Your task to perform on an android device: Open calendar and show me the first week of next month Image 0: 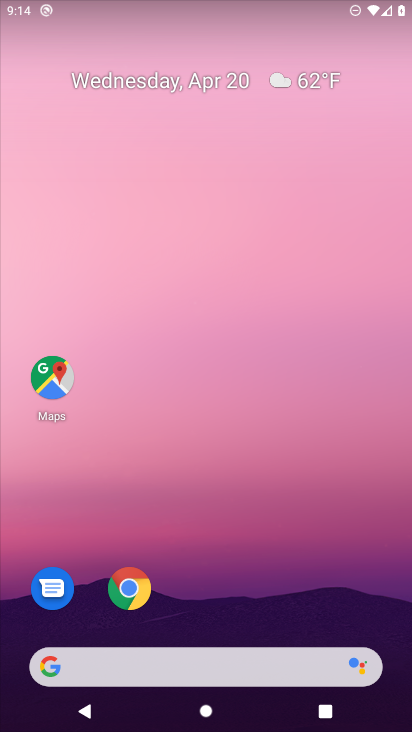
Step 0: drag from (217, 585) to (221, 47)
Your task to perform on an android device: Open calendar and show me the first week of next month Image 1: 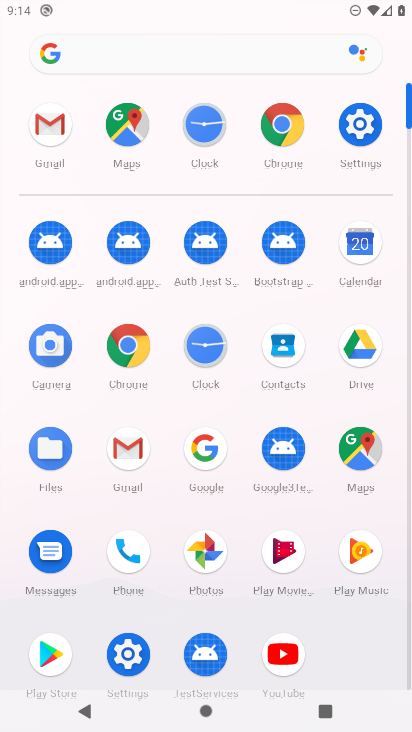
Step 1: click (360, 241)
Your task to perform on an android device: Open calendar and show me the first week of next month Image 2: 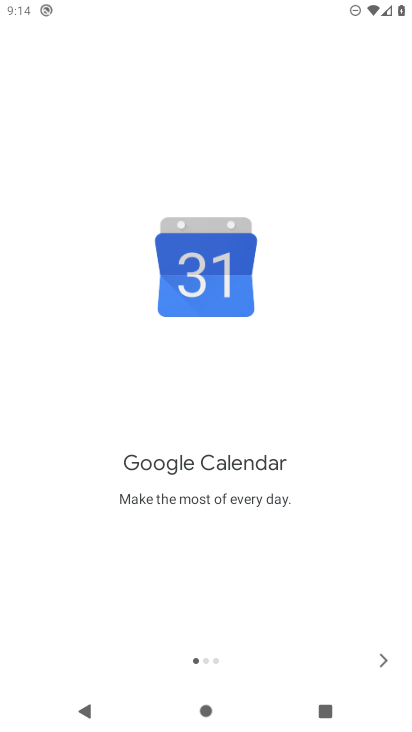
Step 2: click (381, 655)
Your task to perform on an android device: Open calendar and show me the first week of next month Image 3: 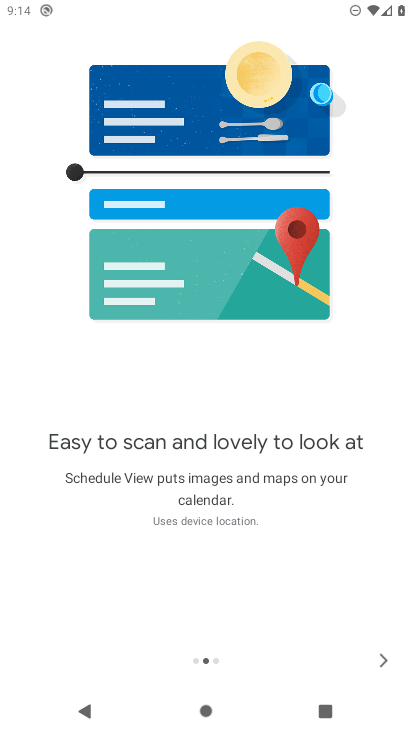
Step 3: click (381, 655)
Your task to perform on an android device: Open calendar and show me the first week of next month Image 4: 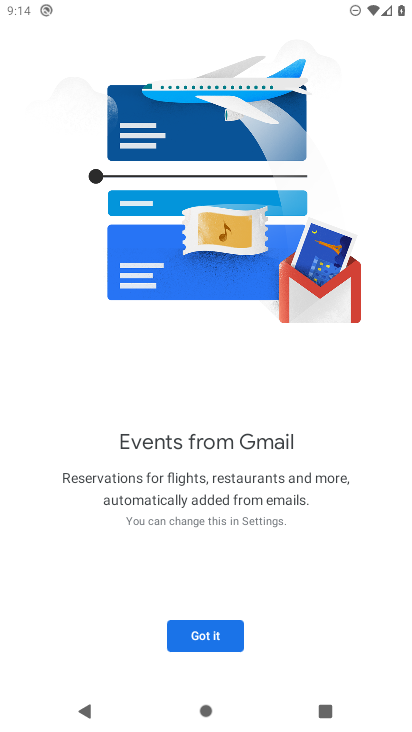
Step 4: click (204, 632)
Your task to perform on an android device: Open calendar and show me the first week of next month Image 5: 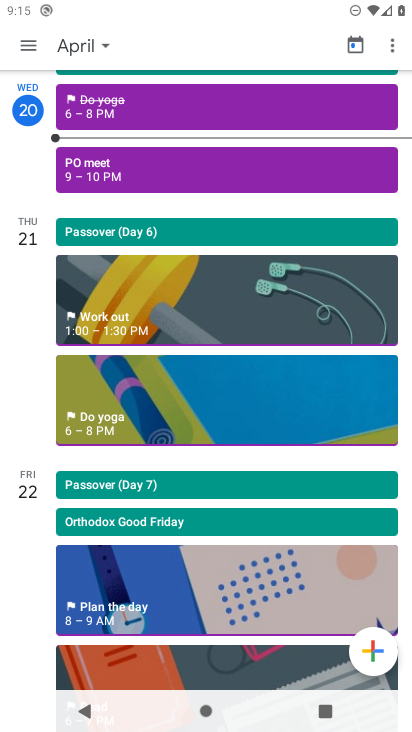
Step 5: drag from (37, 559) to (43, 168)
Your task to perform on an android device: Open calendar and show me the first week of next month Image 6: 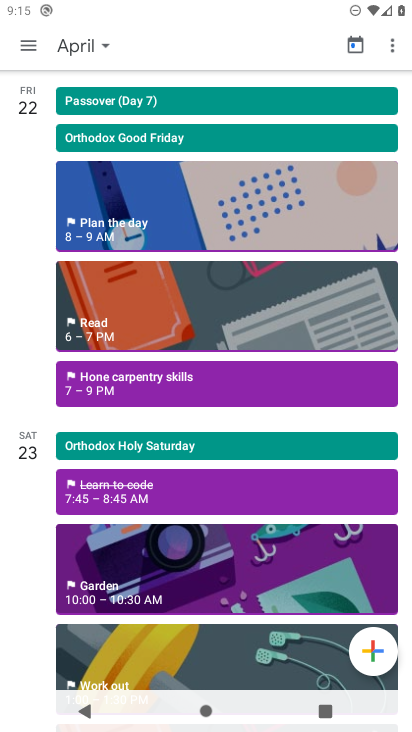
Step 6: drag from (31, 619) to (36, 205)
Your task to perform on an android device: Open calendar and show me the first week of next month Image 7: 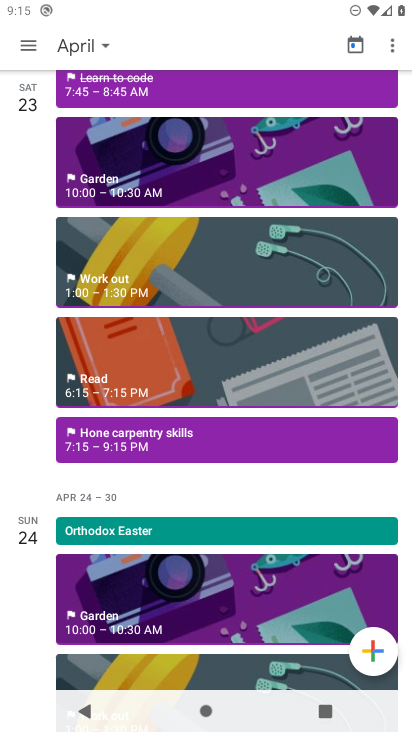
Step 7: drag from (26, 624) to (32, 215)
Your task to perform on an android device: Open calendar and show me the first week of next month Image 8: 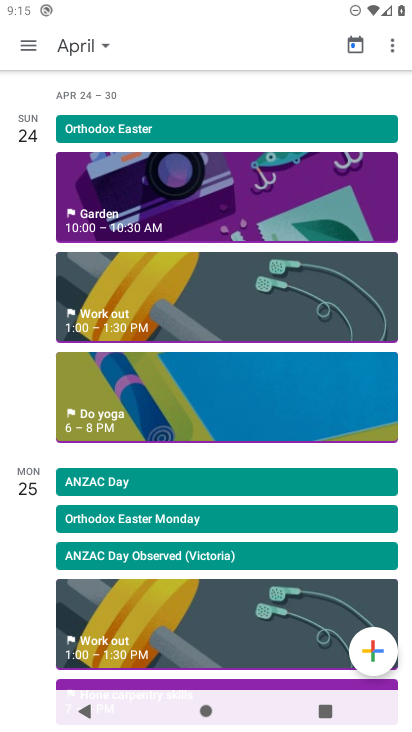
Step 8: click (22, 42)
Your task to perform on an android device: Open calendar and show me the first week of next month Image 9: 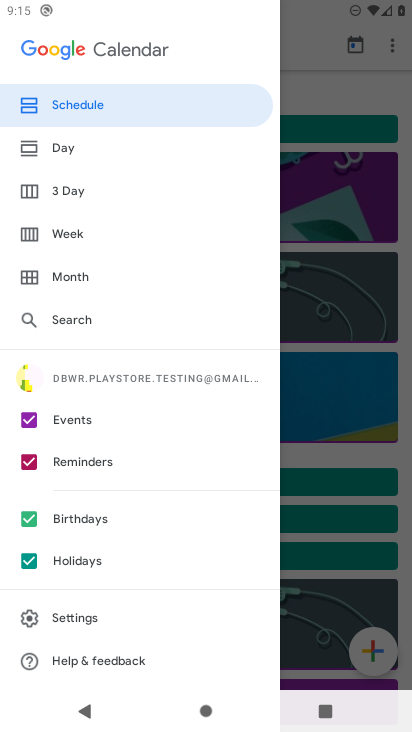
Step 9: click (52, 228)
Your task to perform on an android device: Open calendar and show me the first week of next month Image 10: 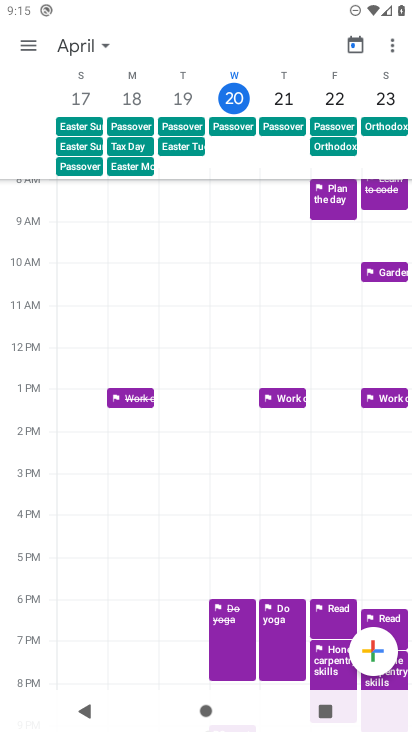
Step 10: drag from (371, 87) to (61, 76)
Your task to perform on an android device: Open calendar and show me the first week of next month Image 11: 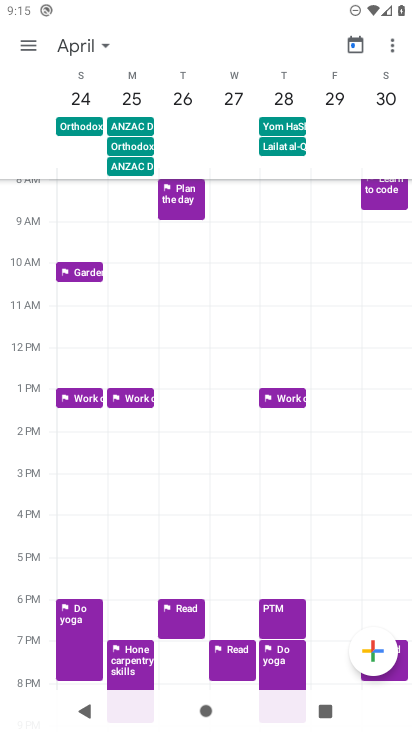
Step 11: drag from (382, 96) to (77, 94)
Your task to perform on an android device: Open calendar and show me the first week of next month Image 12: 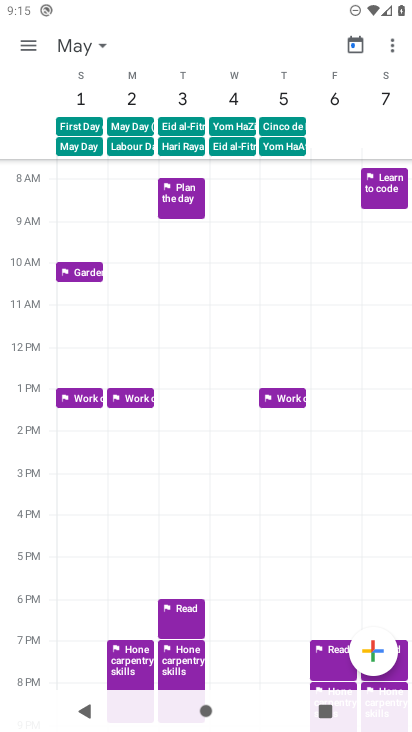
Step 12: click (81, 91)
Your task to perform on an android device: Open calendar and show me the first week of next month Image 13: 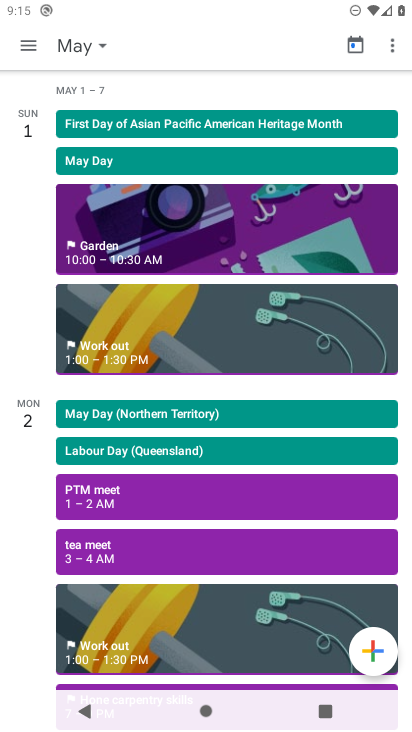
Step 13: task complete